Your task to perform on an android device: Add razer kraken to the cart on amazon.com, then select checkout. Image 0: 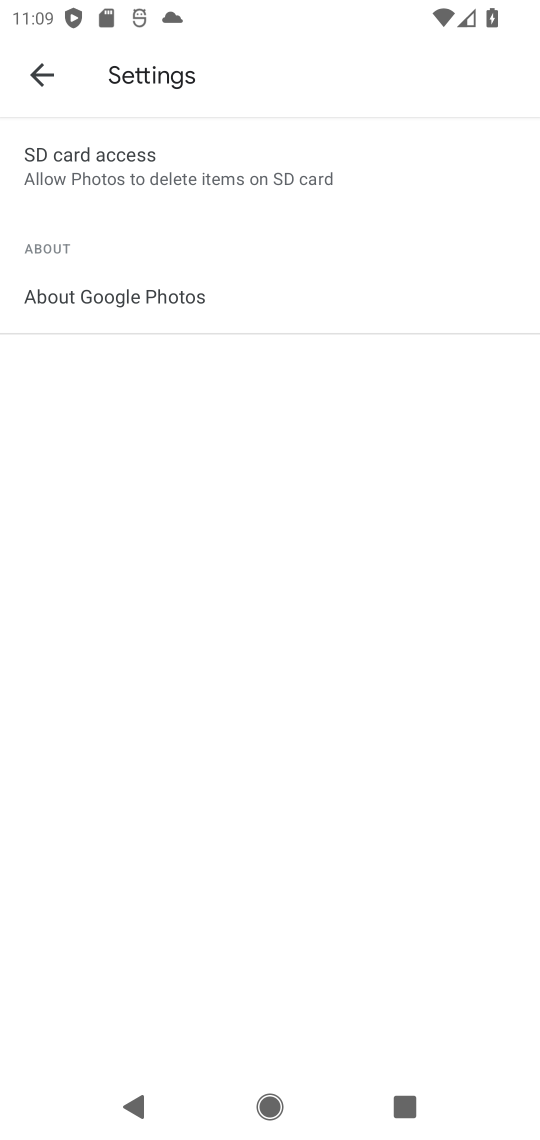
Step 0: press home button
Your task to perform on an android device: Add razer kraken to the cart on amazon.com, then select checkout. Image 1: 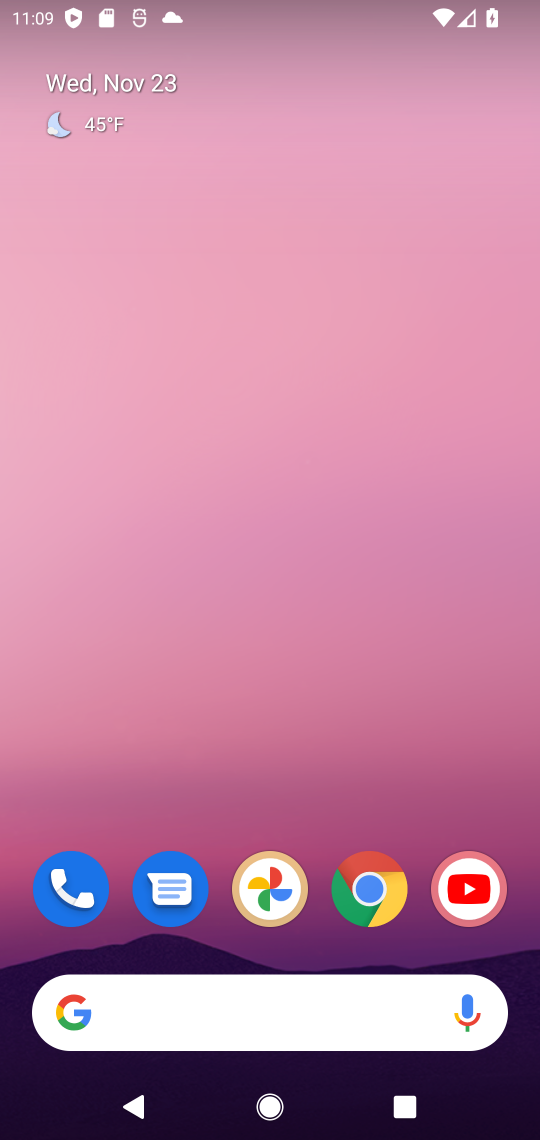
Step 1: click (369, 889)
Your task to perform on an android device: Add razer kraken to the cart on amazon.com, then select checkout. Image 2: 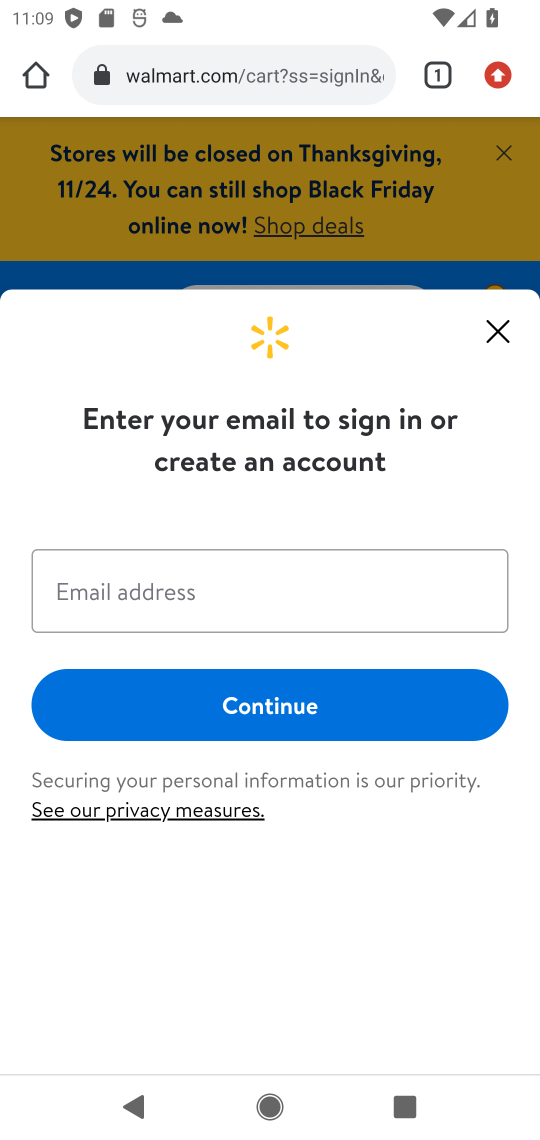
Step 2: click (197, 61)
Your task to perform on an android device: Add razer kraken to the cart on amazon.com, then select checkout. Image 3: 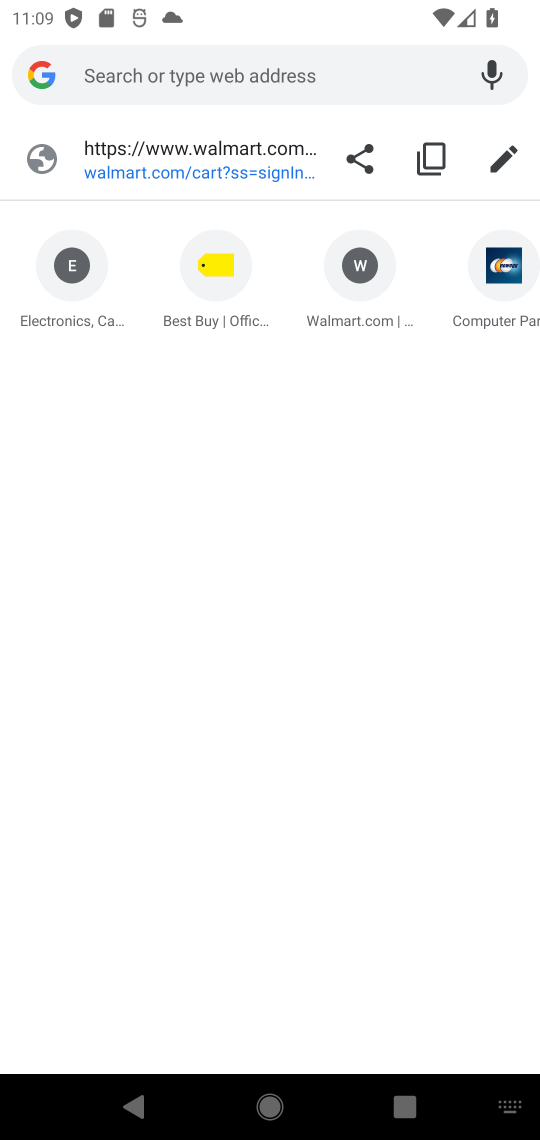
Step 3: type "amazon.com"
Your task to perform on an android device: Add razer kraken to the cart on amazon.com, then select checkout. Image 4: 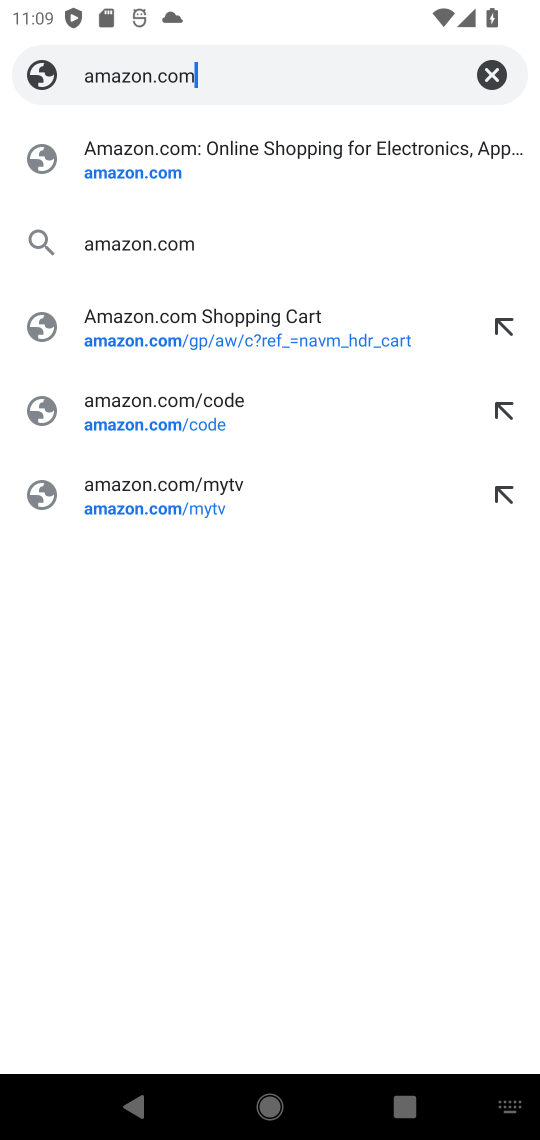
Step 4: click (114, 160)
Your task to perform on an android device: Add razer kraken to the cart on amazon.com, then select checkout. Image 5: 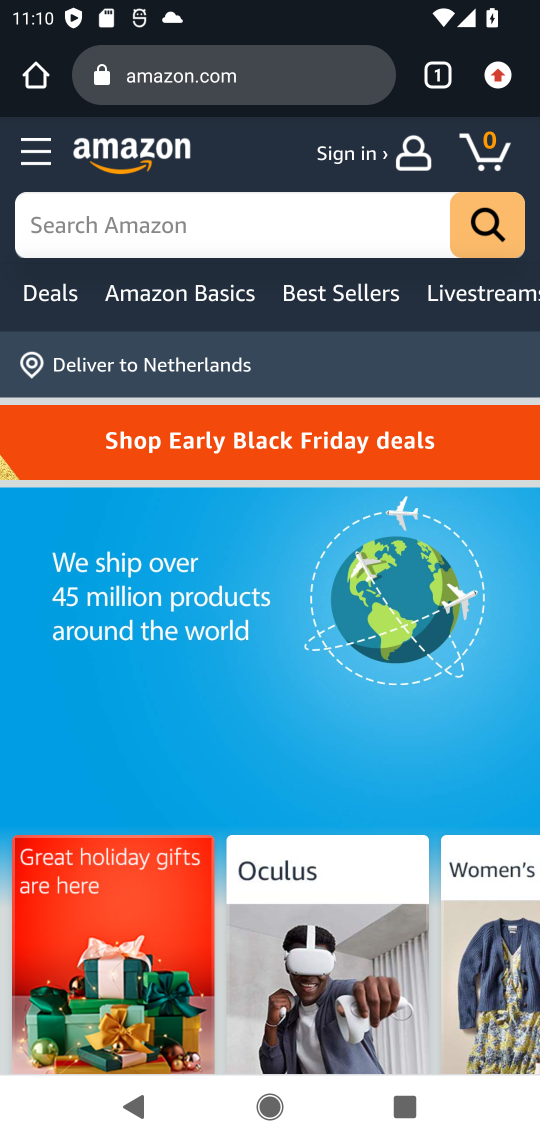
Step 5: click (150, 227)
Your task to perform on an android device: Add razer kraken to the cart on amazon.com, then select checkout. Image 6: 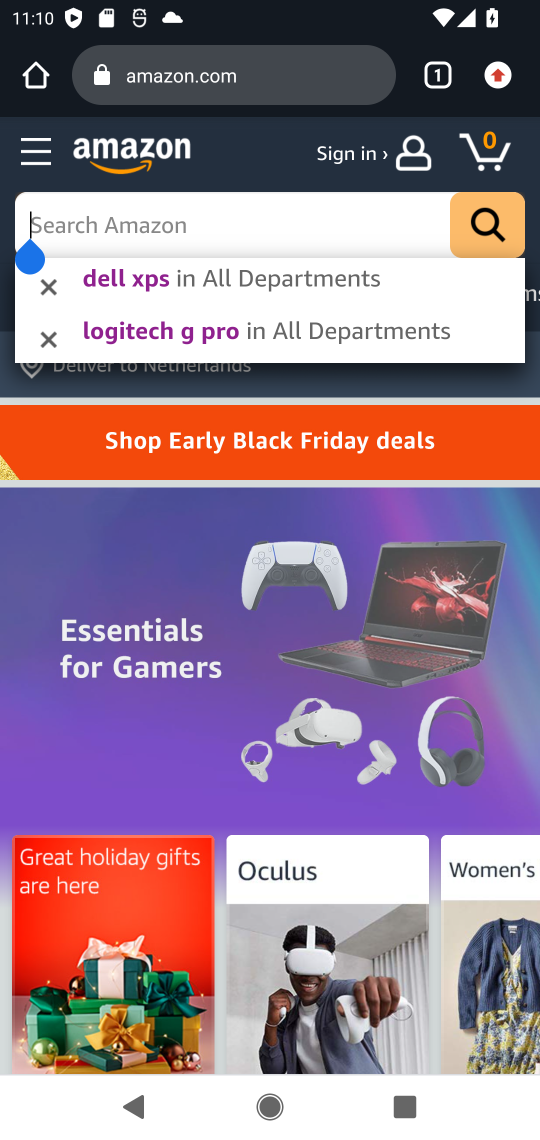
Step 6: type "razer kraken"
Your task to perform on an android device: Add razer kraken to the cart on amazon.com, then select checkout. Image 7: 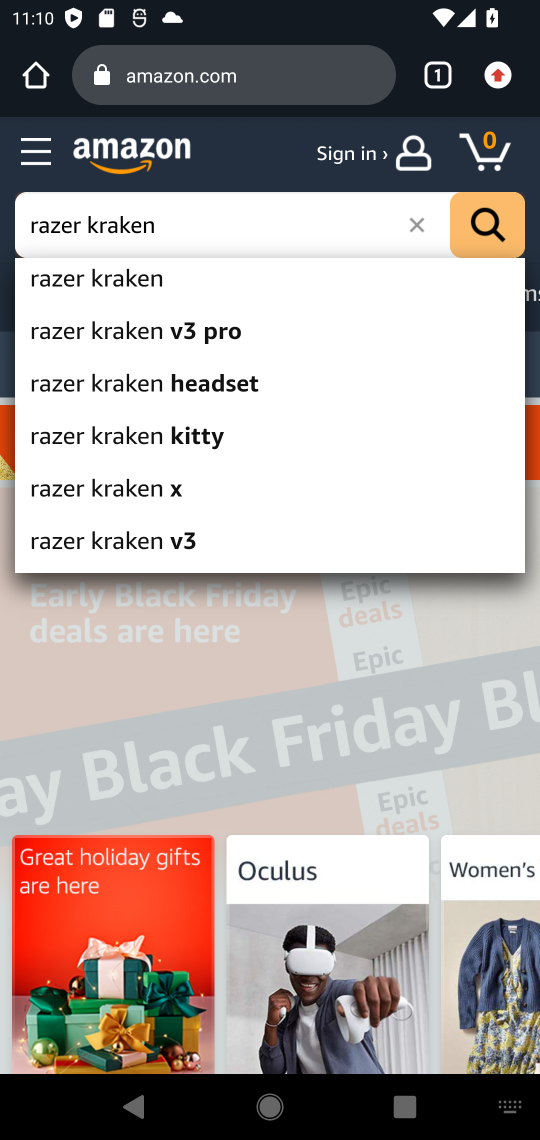
Step 7: click (142, 274)
Your task to perform on an android device: Add razer kraken to the cart on amazon.com, then select checkout. Image 8: 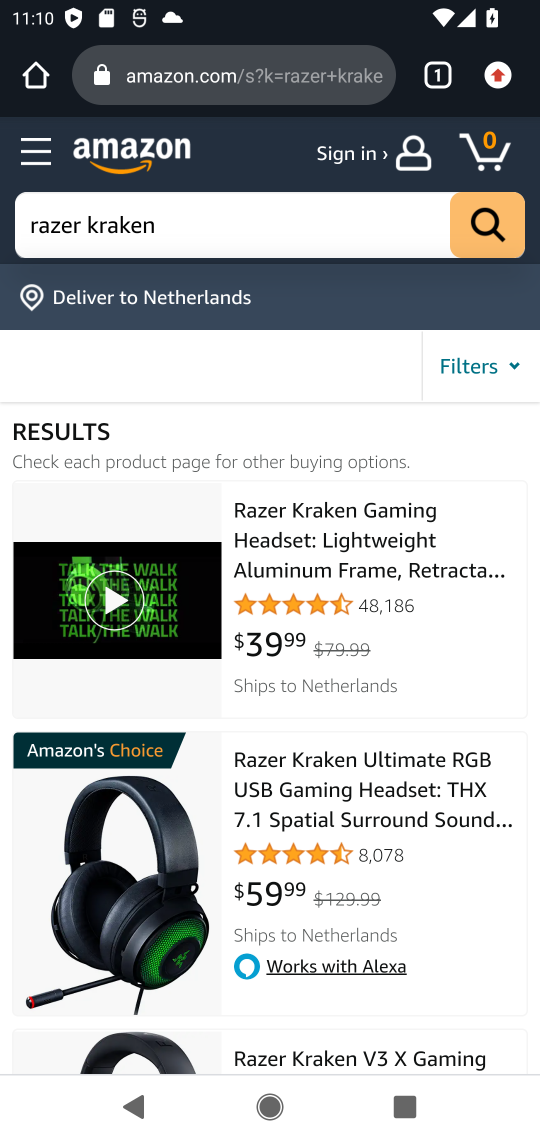
Step 8: click (184, 603)
Your task to perform on an android device: Add razer kraken to the cart on amazon.com, then select checkout. Image 9: 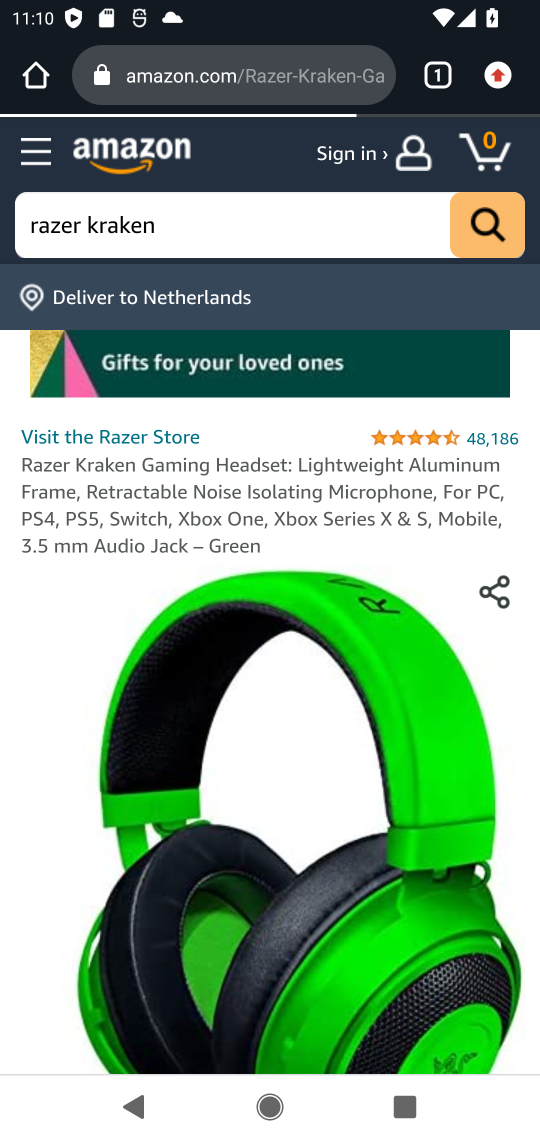
Step 9: drag from (243, 747) to (241, 437)
Your task to perform on an android device: Add razer kraken to the cart on amazon.com, then select checkout. Image 10: 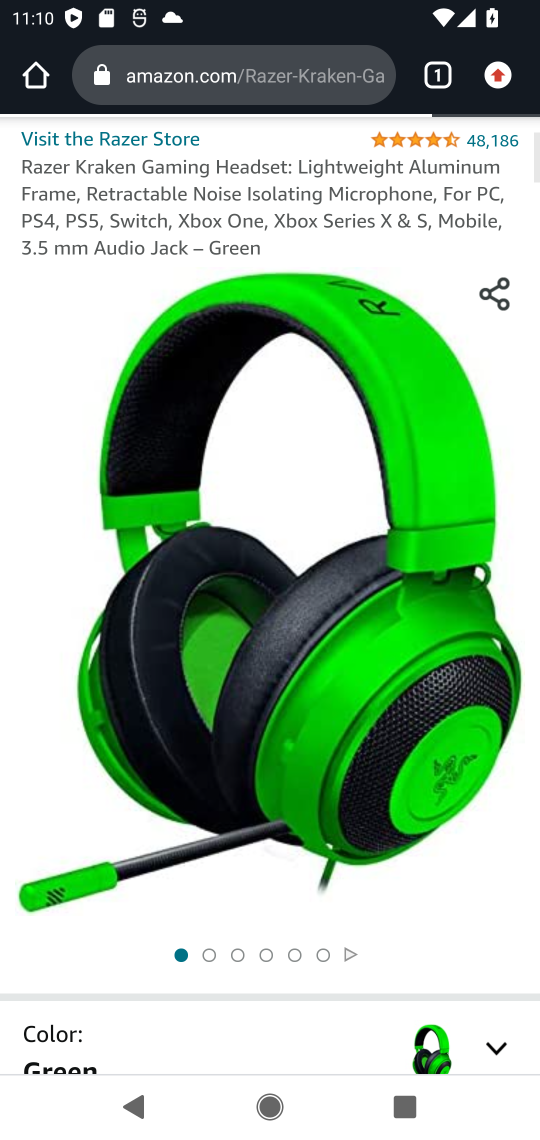
Step 10: drag from (215, 778) to (240, 451)
Your task to perform on an android device: Add razer kraken to the cart on amazon.com, then select checkout. Image 11: 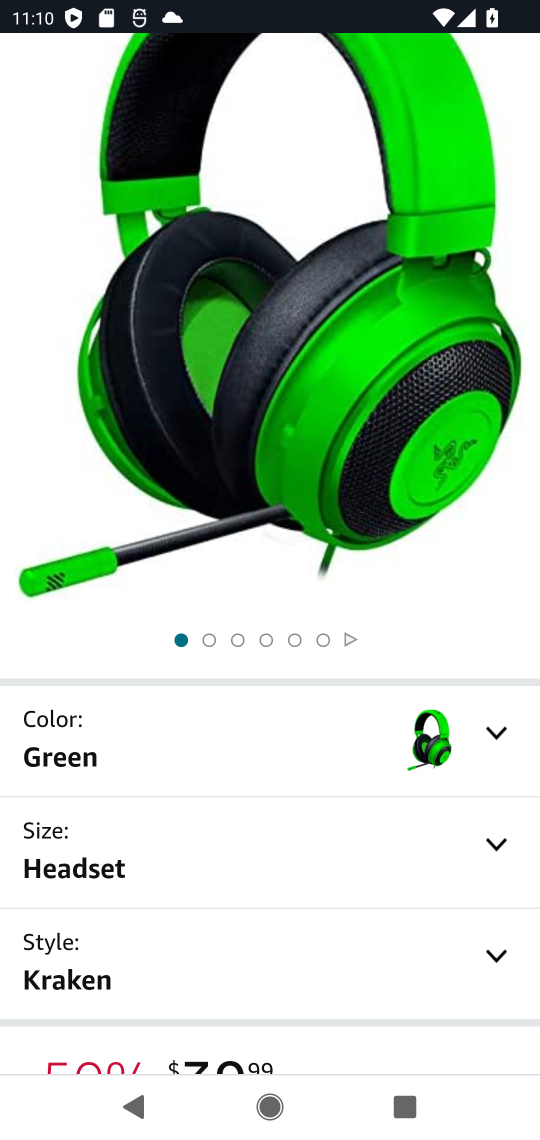
Step 11: drag from (236, 839) to (261, 604)
Your task to perform on an android device: Add razer kraken to the cart on amazon.com, then select checkout. Image 12: 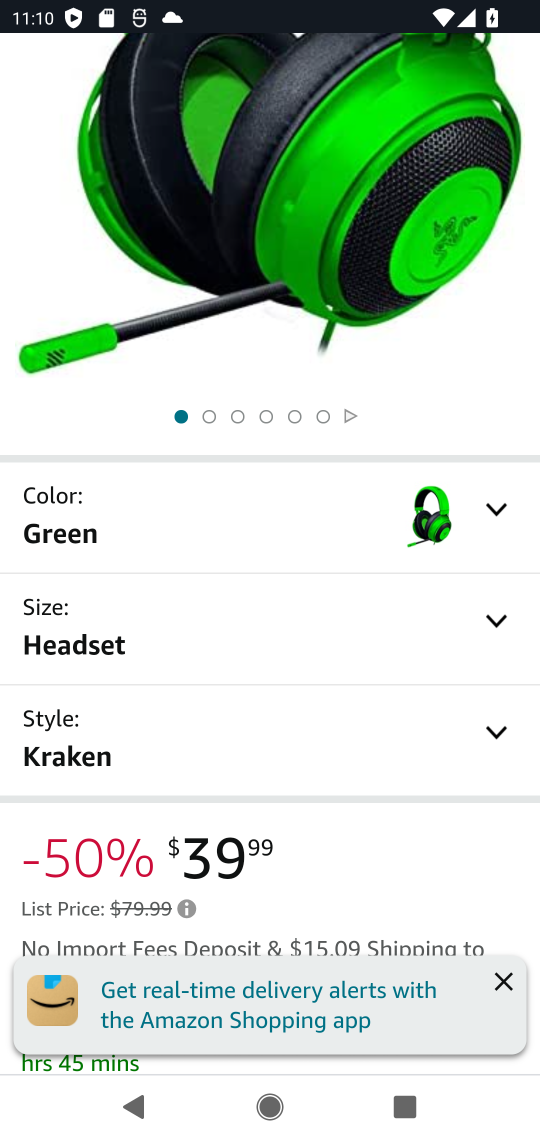
Step 12: drag from (244, 880) to (253, 570)
Your task to perform on an android device: Add razer kraken to the cart on amazon.com, then select checkout. Image 13: 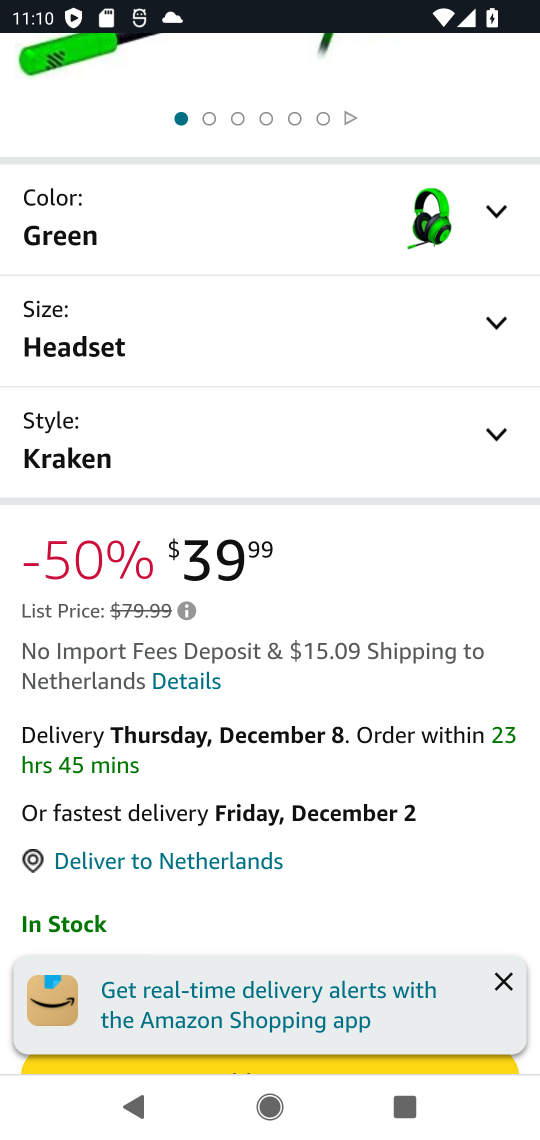
Step 13: drag from (222, 781) to (222, 398)
Your task to perform on an android device: Add razer kraken to the cart on amazon.com, then select checkout. Image 14: 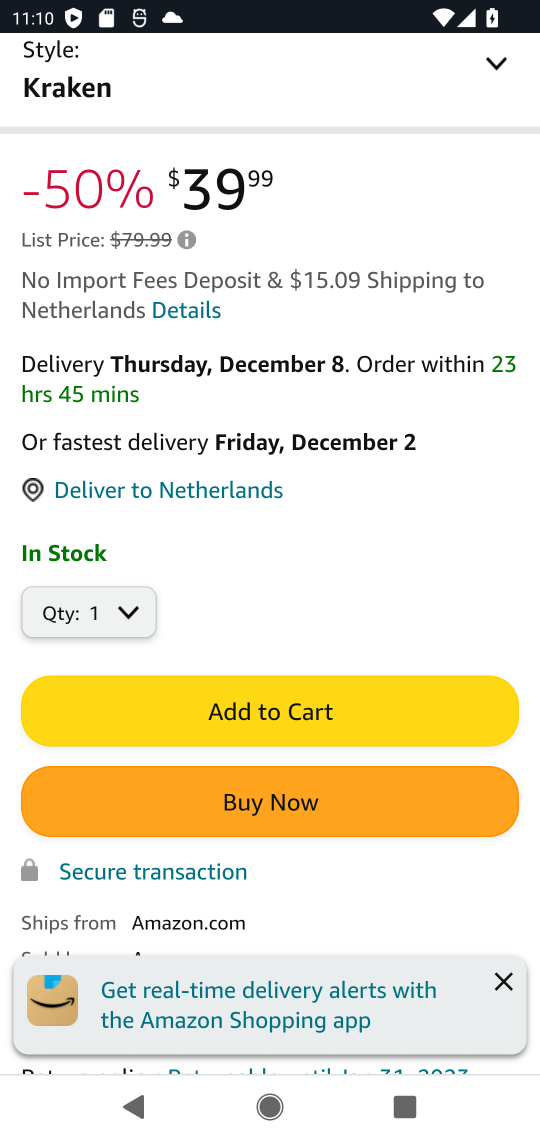
Step 14: click (219, 705)
Your task to perform on an android device: Add razer kraken to the cart on amazon.com, then select checkout. Image 15: 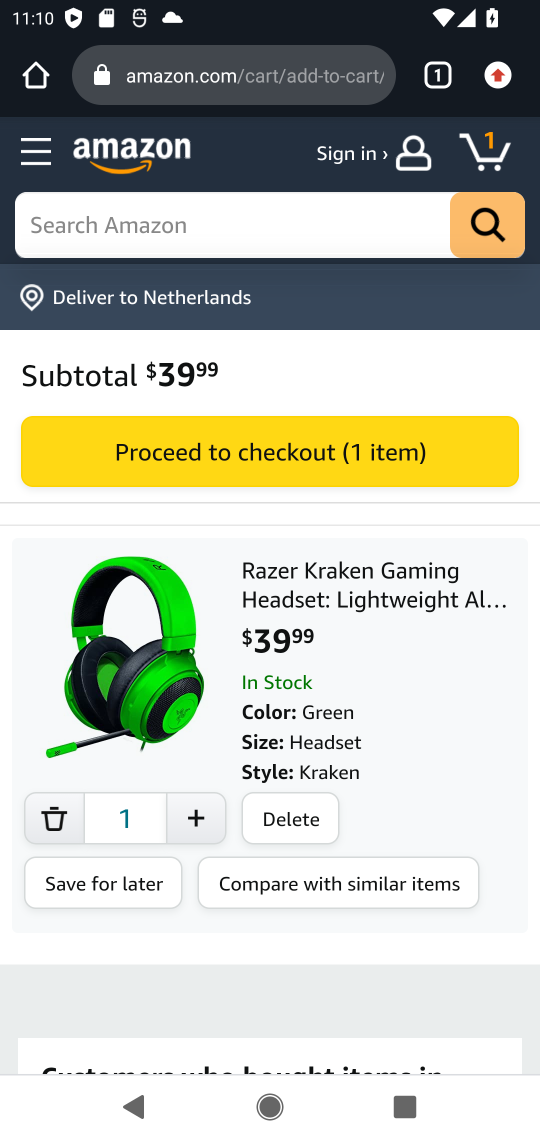
Step 15: click (273, 452)
Your task to perform on an android device: Add razer kraken to the cart on amazon.com, then select checkout. Image 16: 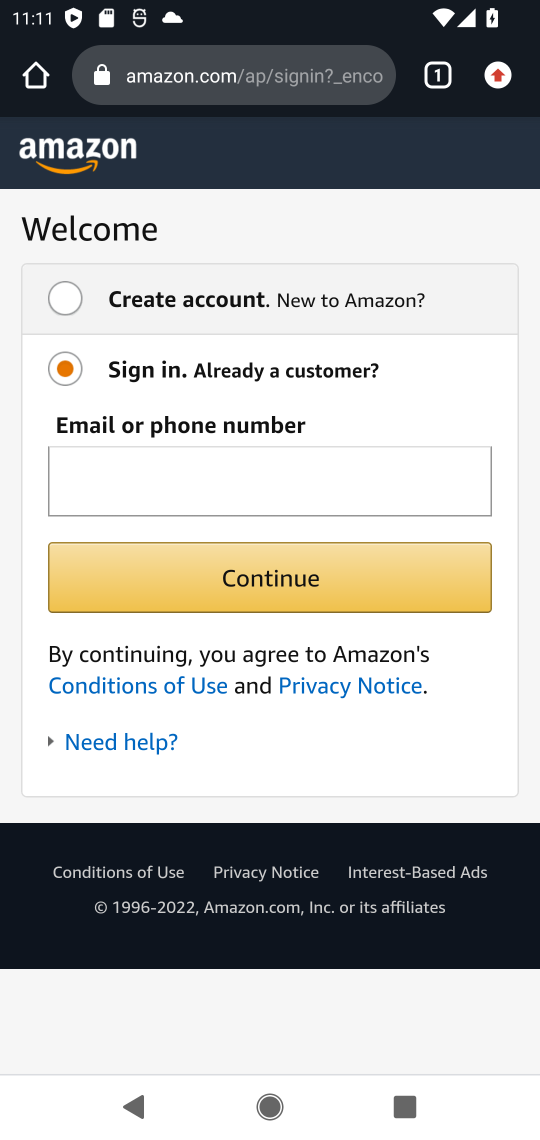
Step 16: task complete